Your task to perform on an android device: change the clock display to digital Image 0: 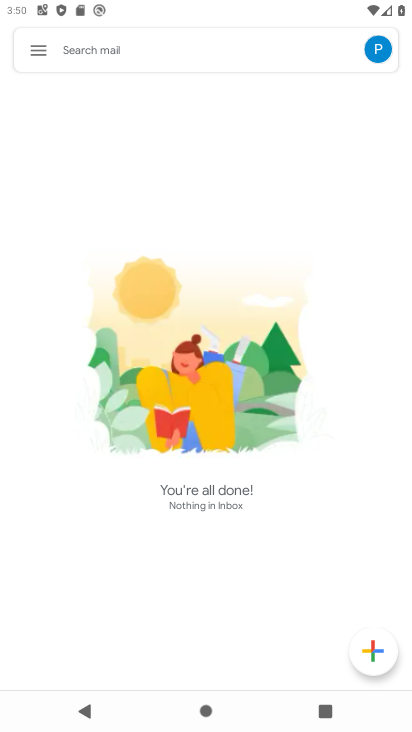
Step 0: press home button
Your task to perform on an android device: change the clock display to digital Image 1: 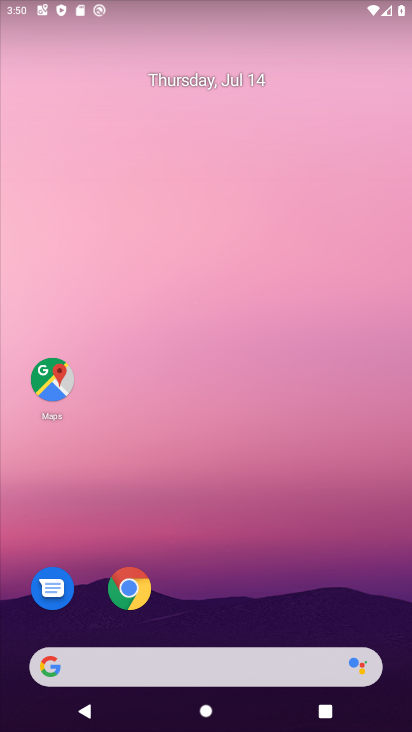
Step 1: drag from (237, 527) to (238, 64)
Your task to perform on an android device: change the clock display to digital Image 2: 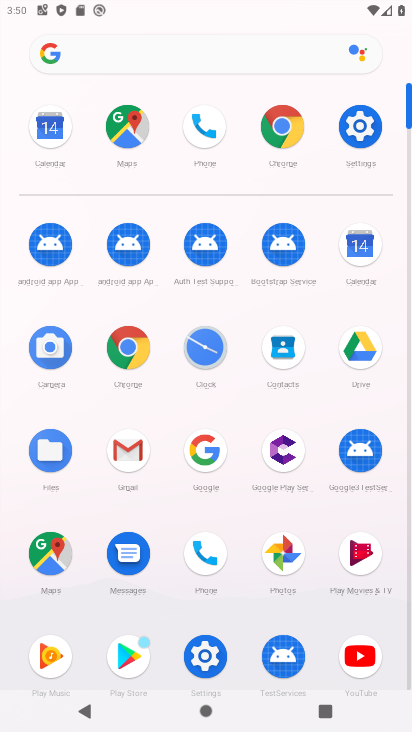
Step 2: click (205, 349)
Your task to perform on an android device: change the clock display to digital Image 3: 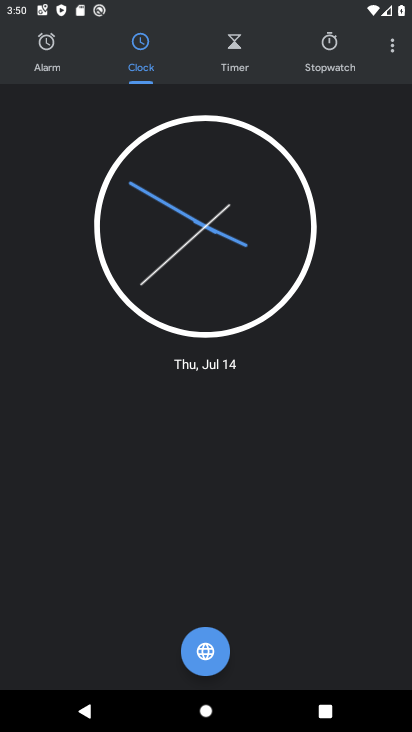
Step 3: click (401, 44)
Your task to perform on an android device: change the clock display to digital Image 4: 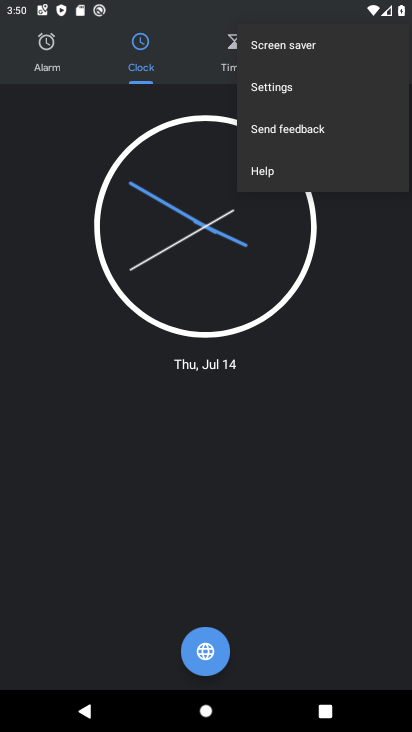
Step 4: click (280, 81)
Your task to perform on an android device: change the clock display to digital Image 5: 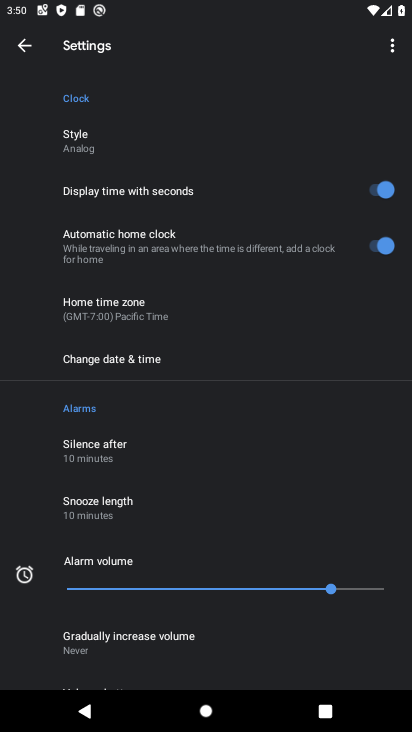
Step 5: click (90, 145)
Your task to perform on an android device: change the clock display to digital Image 6: 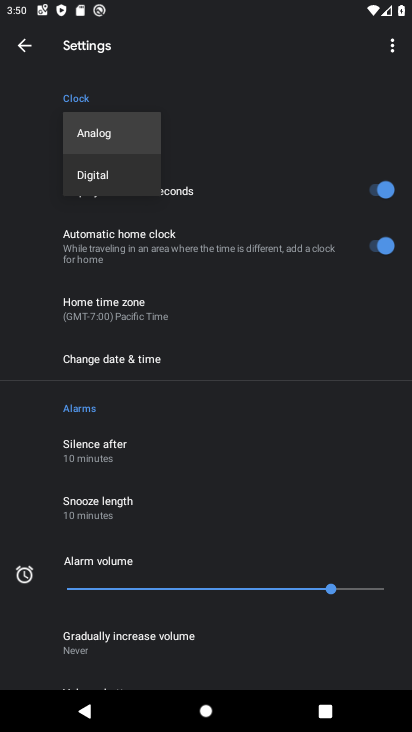
Step 6: click (84, 179)
Your task to perform on an android device: change the clock display to digital Image 7: 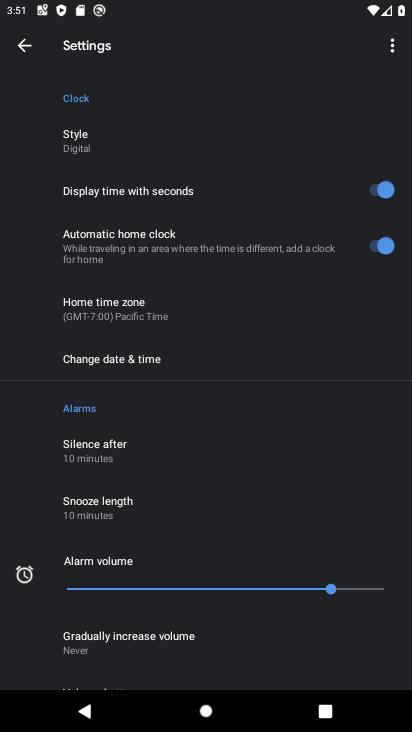
Step 7: task complete